Your task to perform on an android device: toggle pop-ups in chrome Image 0: 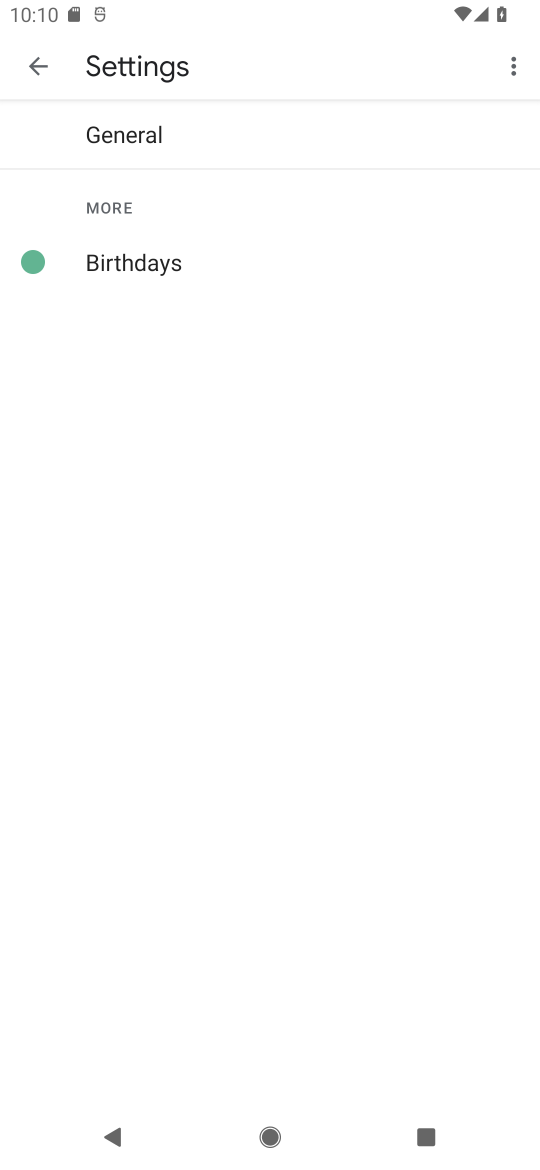
Step 0: press home button
Your task to perform on an android device: toggle pop-ups in chrome Image 1: 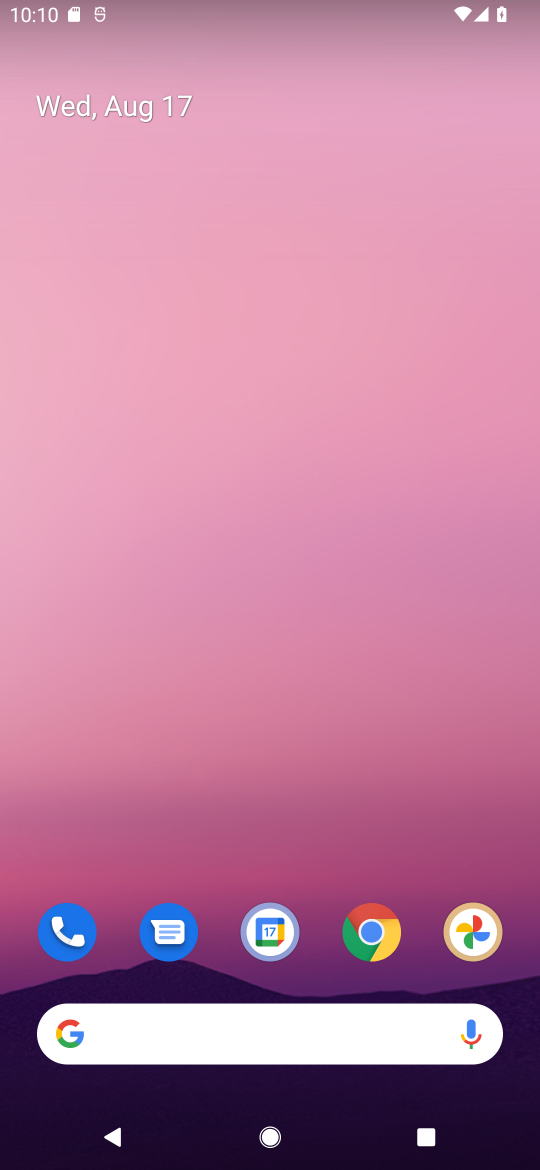
Step 1: click (373, 937)
Your task to perform on an android device: toggle pop-ups in chrome Image 2: 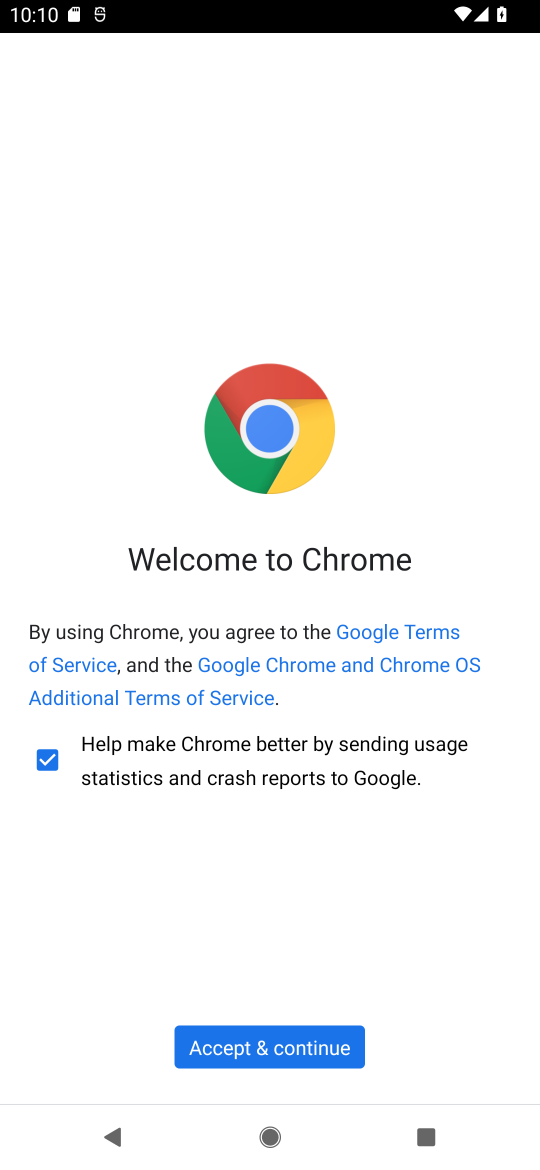
Step 2: click (287, 1042)
Your task to perform on an android device: toggle pop-ups in chrome Image 3: 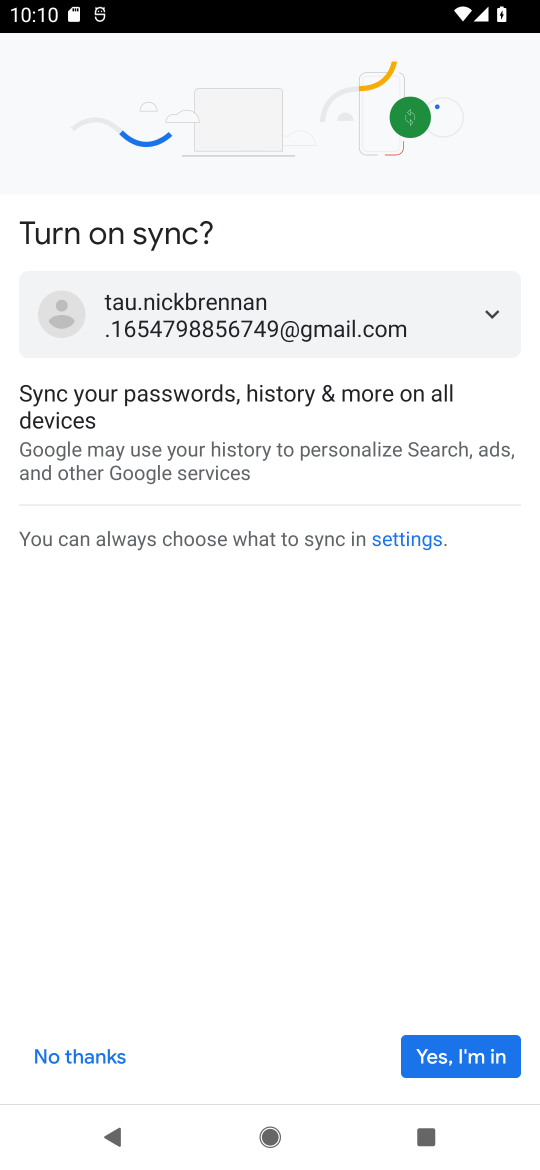
Step 3: click (466, 1062)
Your task to perform on an android device: toggle pop-ups in chrome Image 4: 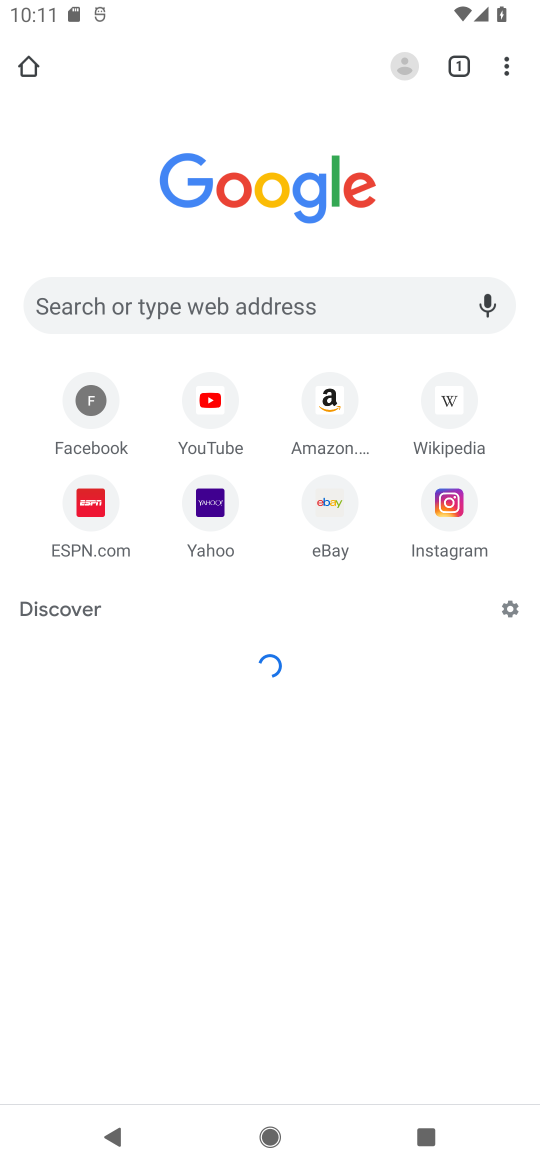
Step 4: click (507, 71)
Your task to perform on an android device: toggle pop-ups in chrome Image 5: 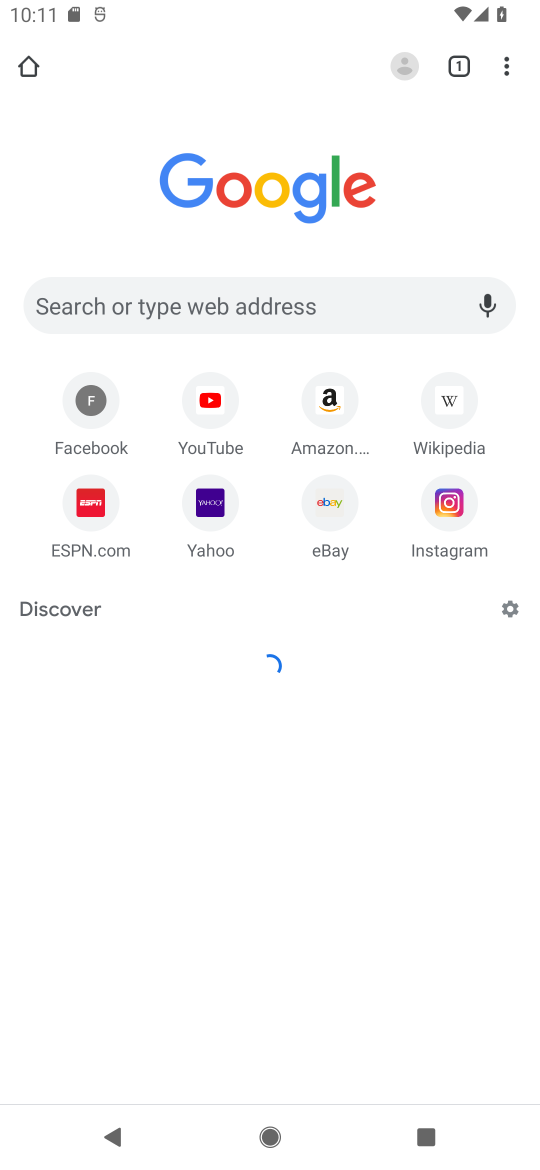
Step 5: drag from (377, 313) to (480, 136)
Your task to perform on an android device: toggle pop-ups in chrome Image 6: 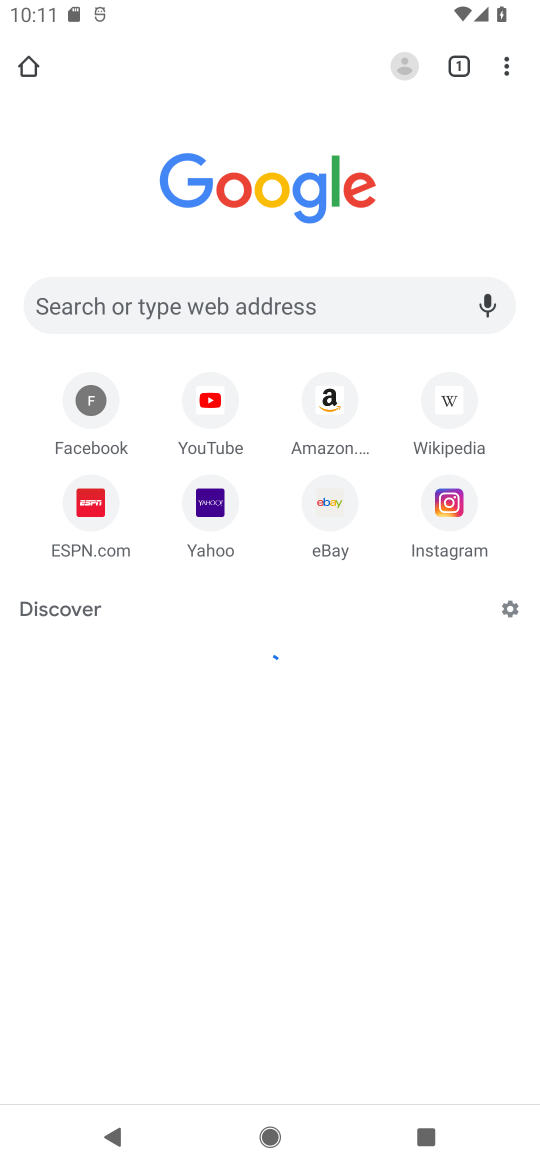
Step 6: click (508, 67)
Your task to perform on an android device: toggle pop-ups in chrome Image 7: 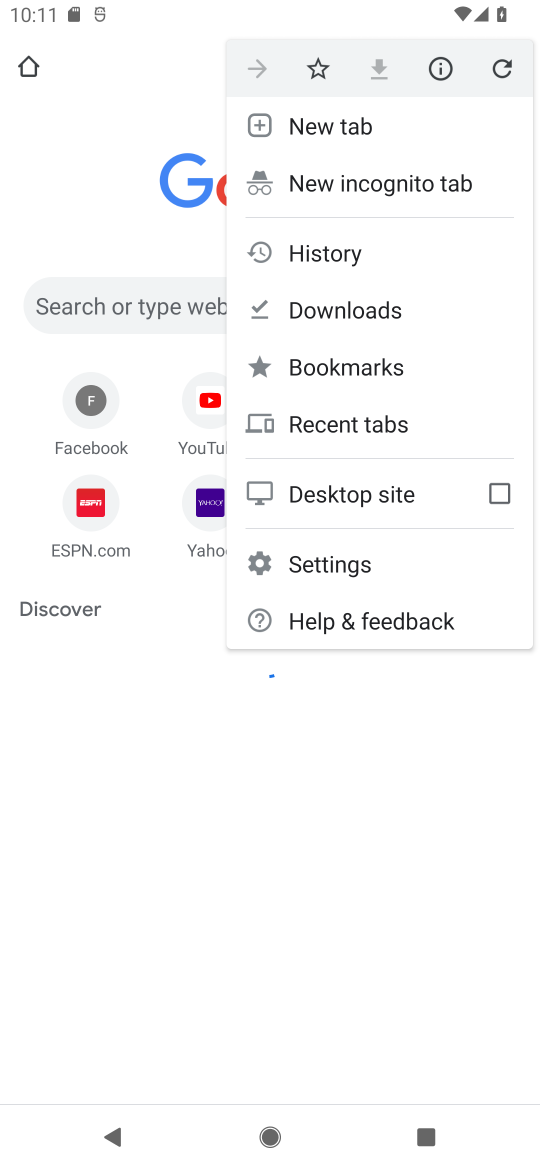
Step 7: click (304, 570)
Your task to perform on an android device: toggle pop-ups in chrome Image 8: 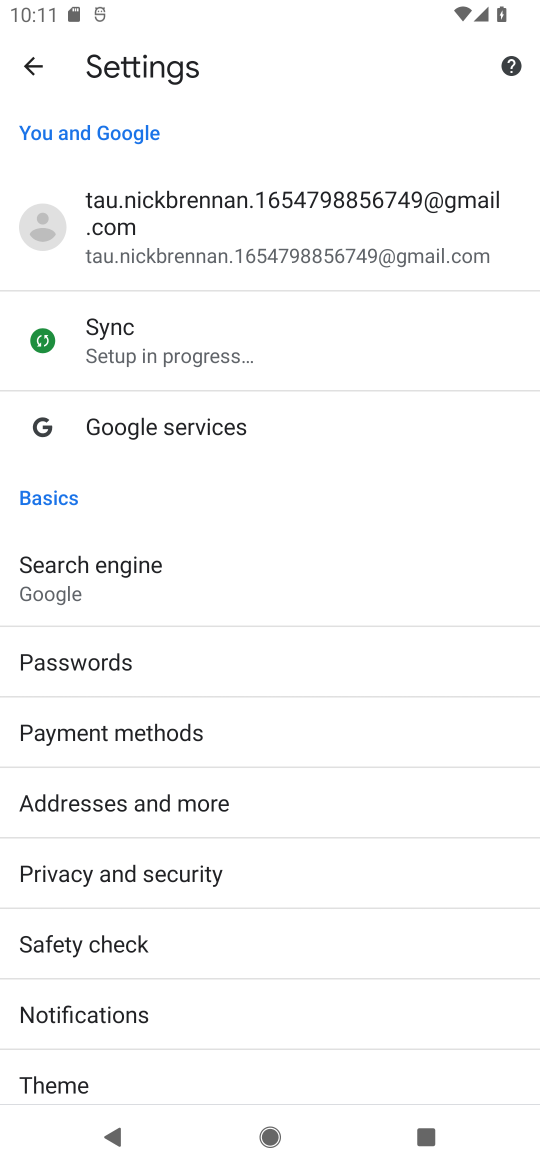
Step 8: drag from (170, 1009) to (154, 414)
Your task to perform on an android device: toggle pop-ups in chrome Image 9: 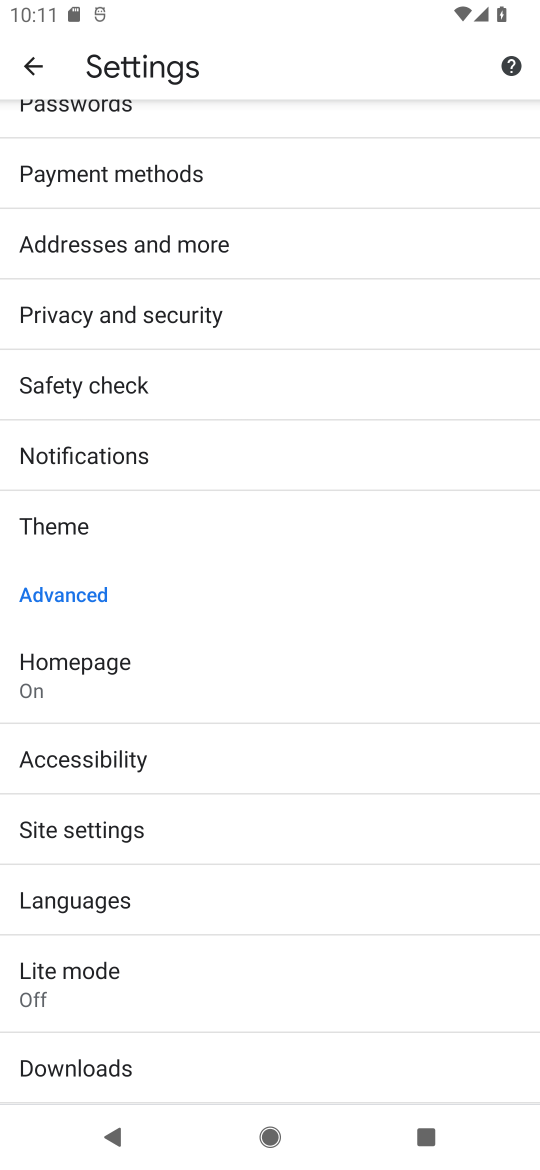
Step 9: click (113, 822)
Your task to perform on an android device: toggle pop-ups in chrome Image 10: 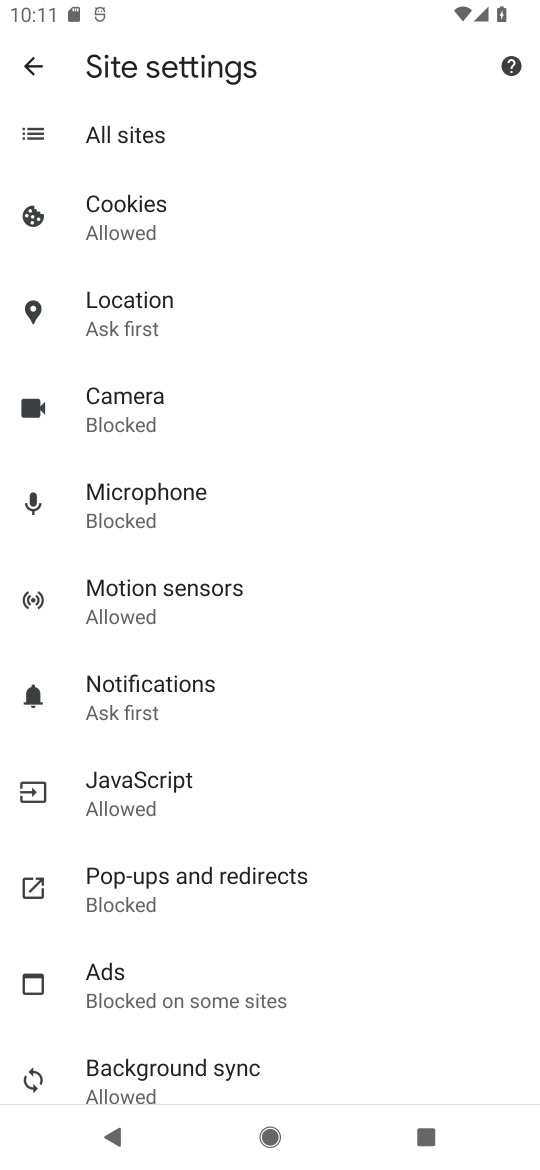
Step 10: click (147, 877)
Your task to perform on an android device: toggle pop-ups in chrome Image 11: 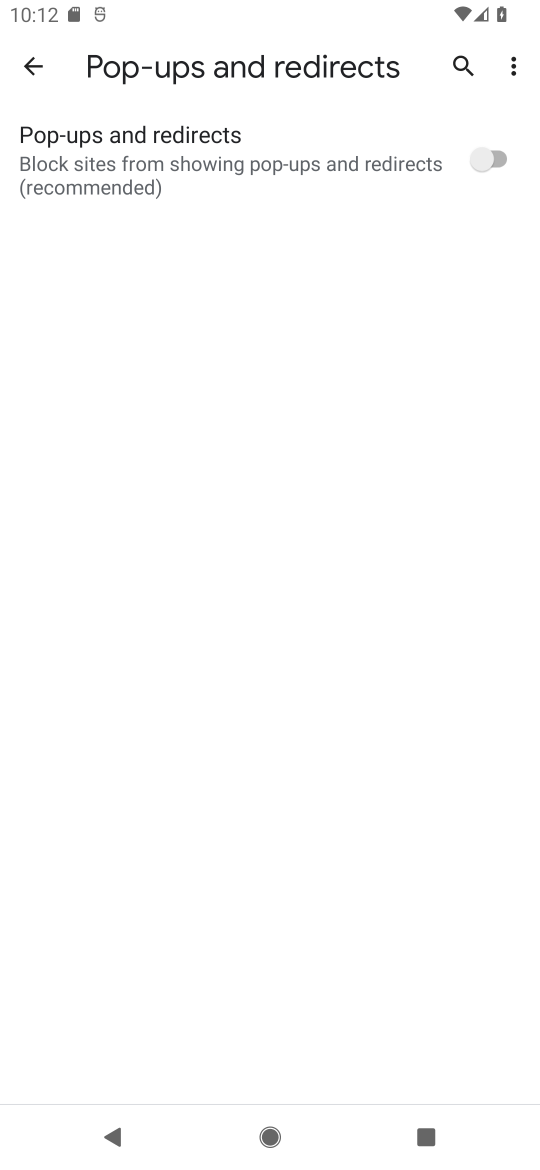
Step 11: click (499, 158)
Your task to perform on an android device: toggle pop-ups in chrome Image 12: 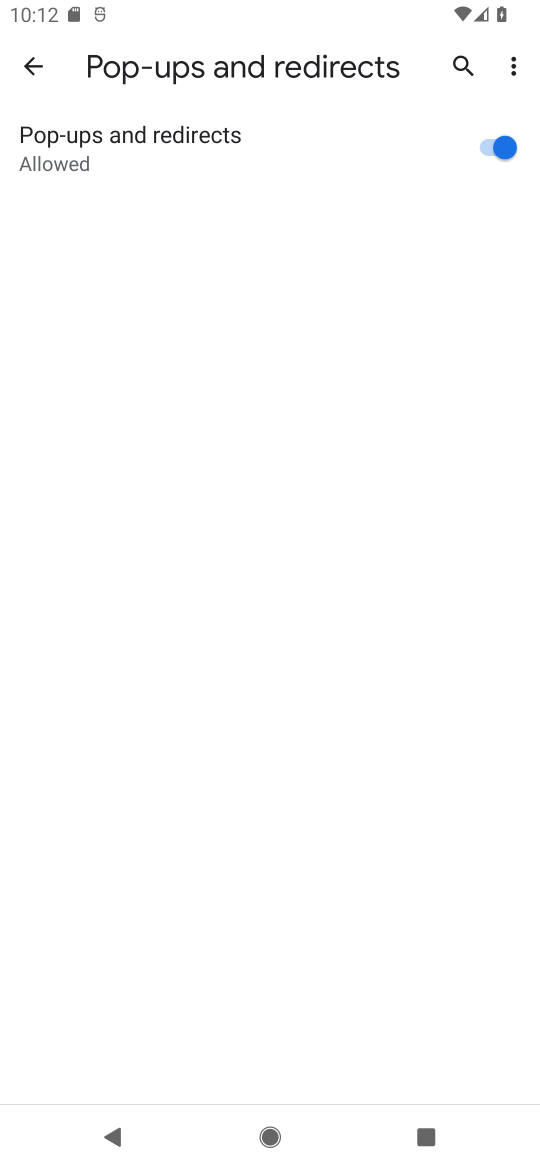
Step 12: task complete